Your task to perform on an android device: Open Youtube and go to "Your channel" Image 0: 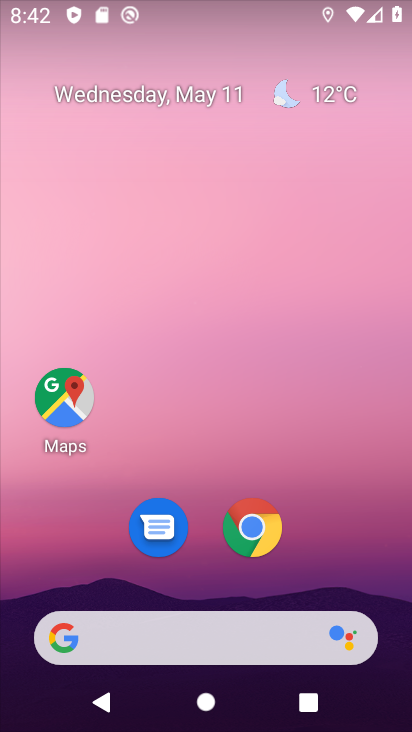
Step 0: drag from (355, 560) to (332, 133)
Your task to perform on an android device: Open Youtube and go to "Your channel" Image 1: 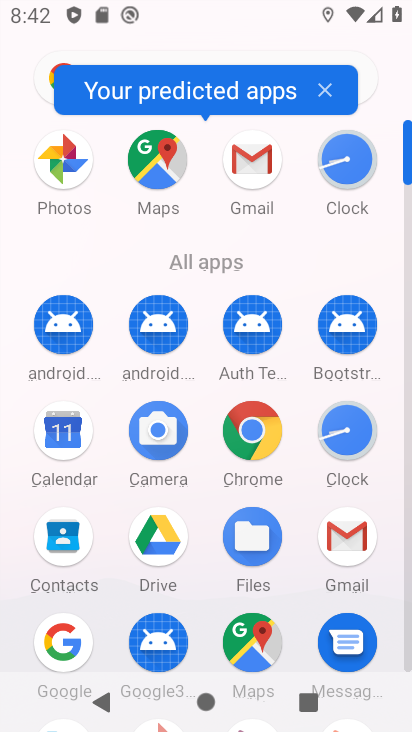
Step 1: drag from (405, 151) to (405, 312)
Your task to perform on an android device: Open Youtube and go to "Your channel" Image 2: 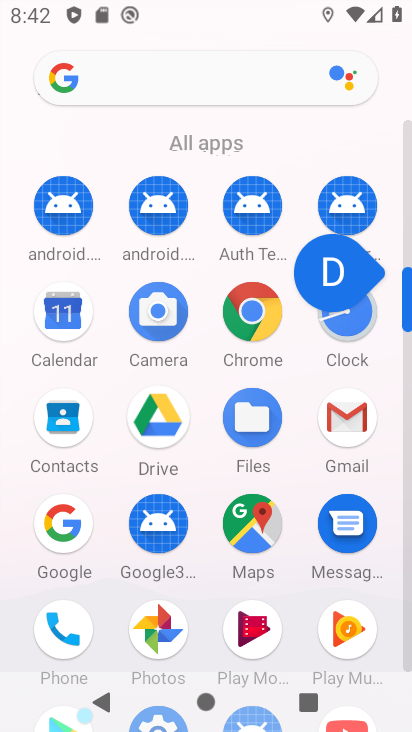
Step 2: click (403, 317)
Your task to perform on an android device: Open Youtube and go to "Your channel" Image 3: 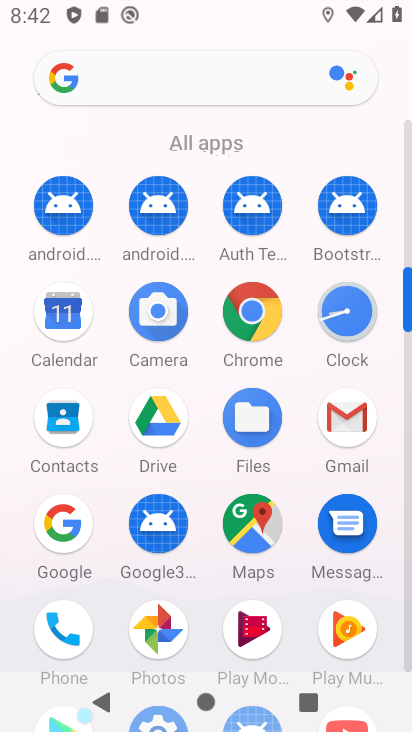
Step 3: drag from (403, 317) to (391, 516)
Your task to perform on an android device: Open Youtube and go to "Your channel" Image 4: 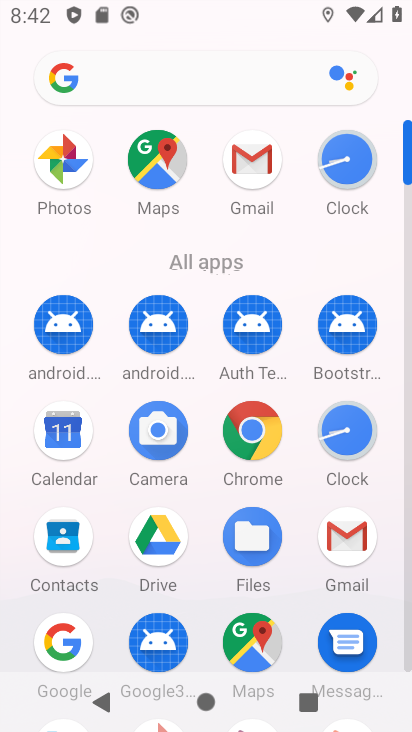
Step 4: click (409, 514)
Your task to perform on an android device: Open Youtube and go to "Your channel" Image 5: 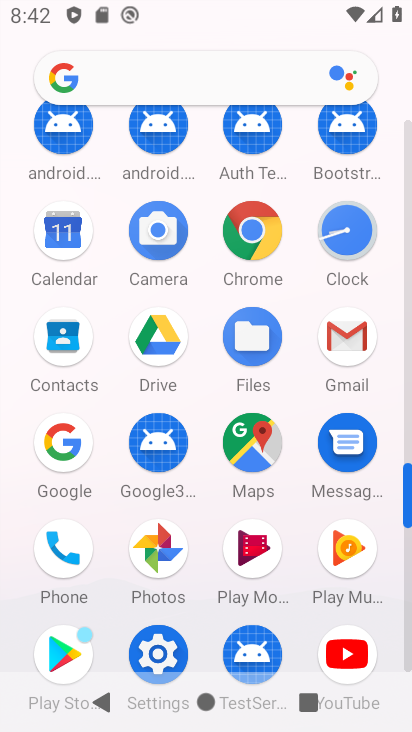
Step 5: click (339, 657)
Your task to perform on an android device: Open Youtube and go to "Your channel" Image 6: 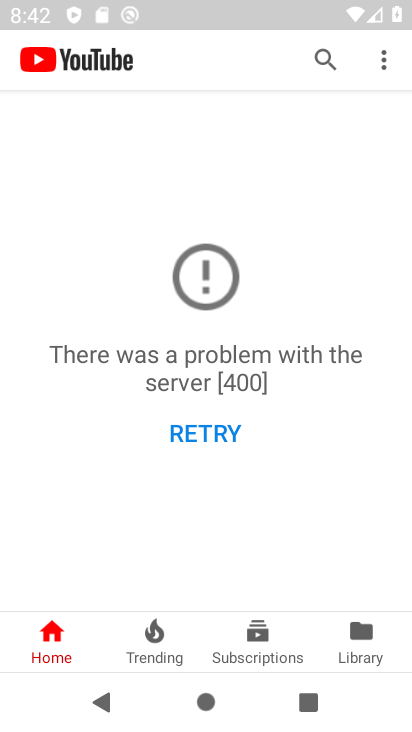
Step 6: click (340, 646)
Your task to perform on an android device: Open Youtube and go to "Your channel" Image 7: 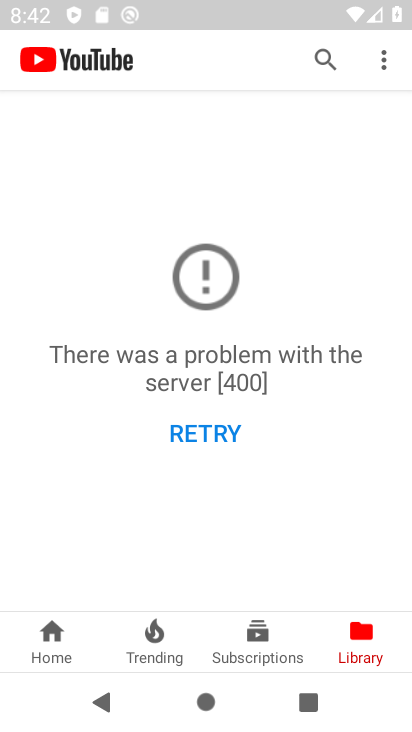
Step 7: click (390, 51)
Your task to perform on an android device: Open Youtube and go to "Your channel" Image 8: 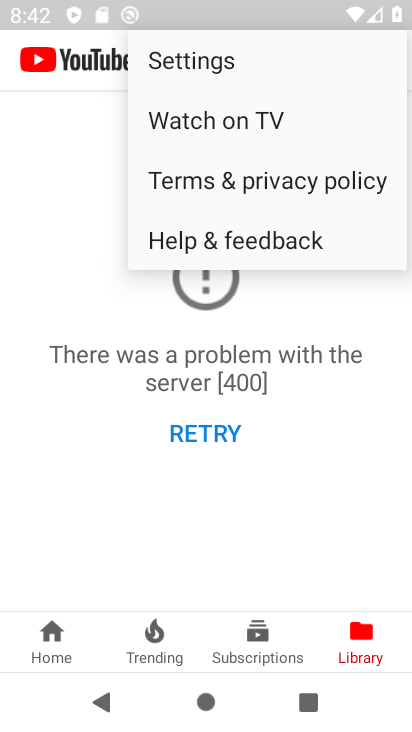
Step 8: task complete